Your task to perform on an android device: When is my next meeting? Image 0: 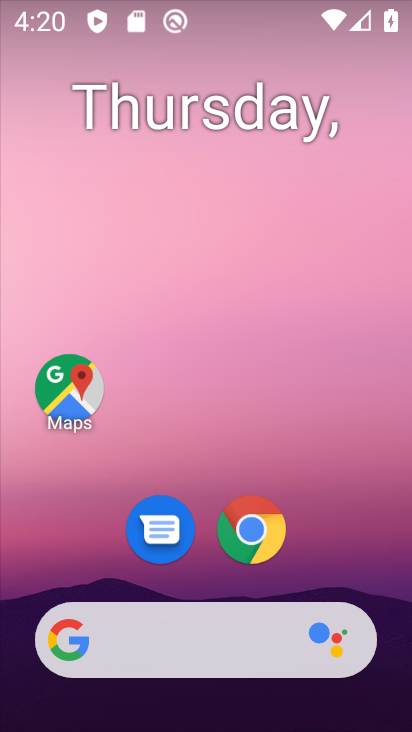
Step 0: drag from (202, 719) to (206, 32)
Your task to perform on an android device: When is my next meeting? Image 1: 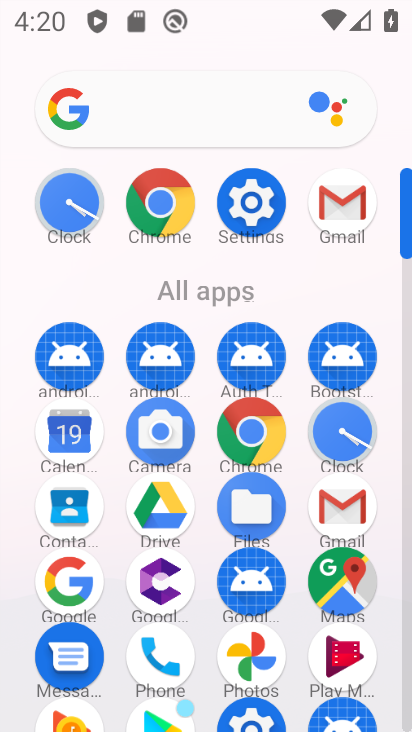
Step 1: click (72, 437)
Your task to perform on an android device: When is my next meeting? Image 2: 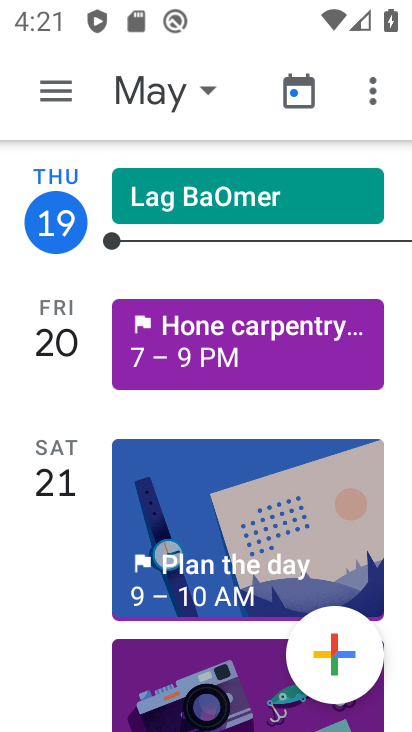
Step 2: click (130, 86)
Your task to perform on an android device: When is my next meeting? Image 3: 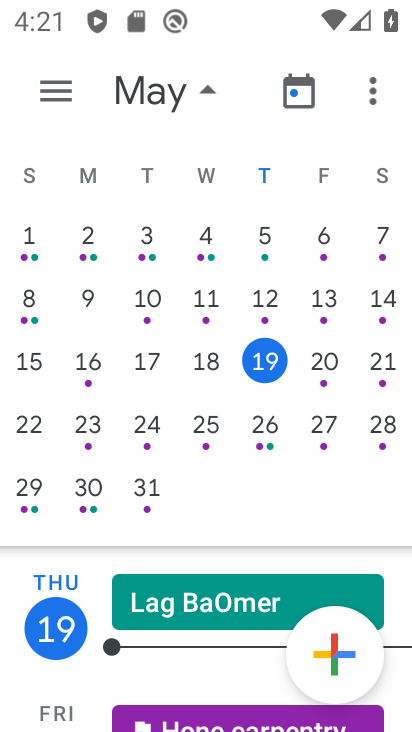
Step 3: click (329, 351)
Your task to perform on an android device: When is my next meeting? Image 4: 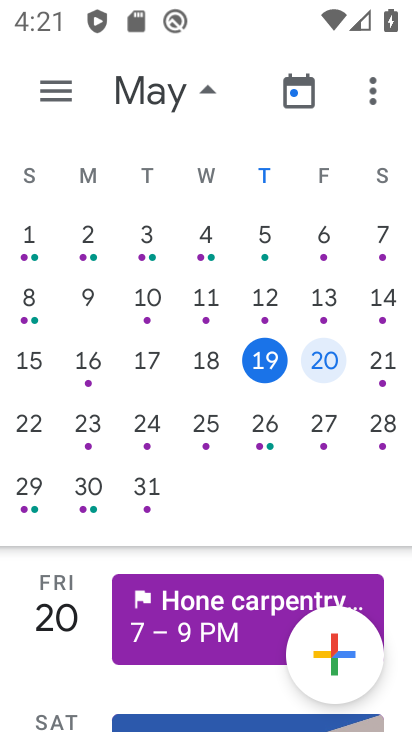
Step 4: click (333, 352)
Your task to perform on an android device: When is my next meeting? Image 5: 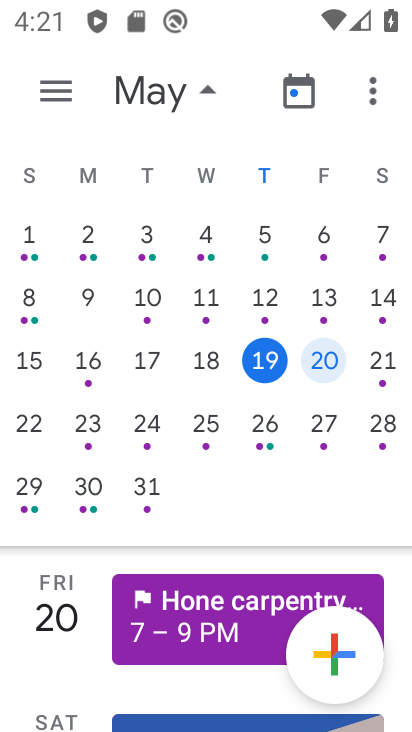
Step 5: click (205, 94)
Your task to perform on an android device: When is my next meeting? Image 6: 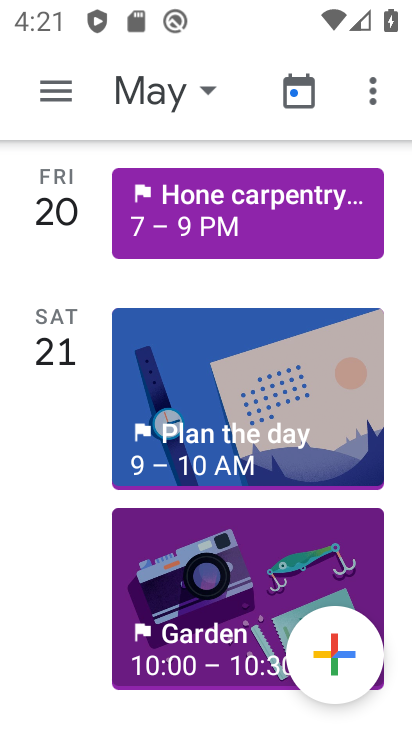
Step 6: task complete